Your task to perform on an android device: Open ESPN.com Image 0: 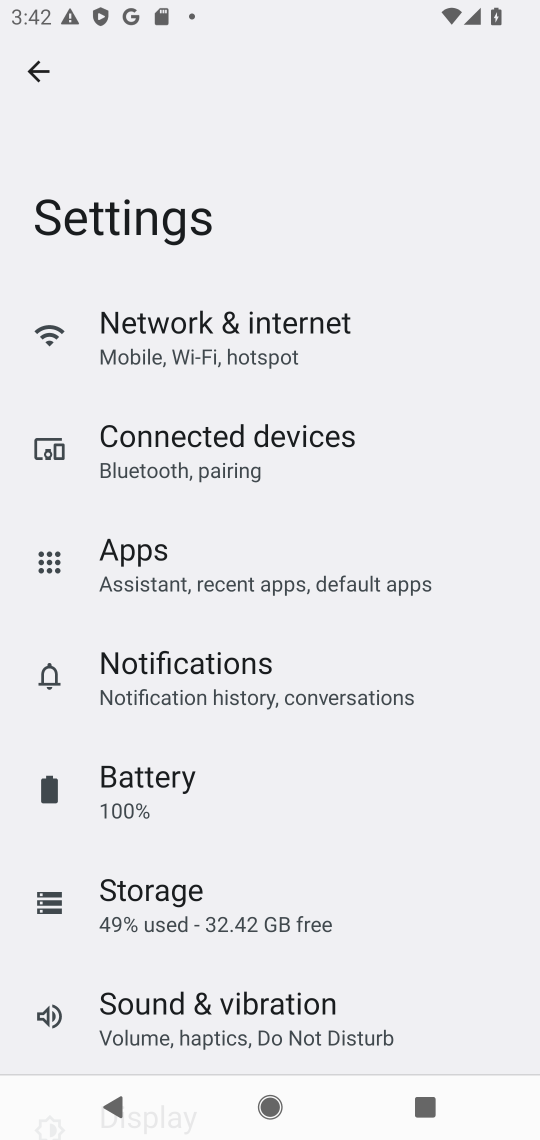
Step 0: press home button
Your task to perform on an android device: Open ESPN.com Image 1: 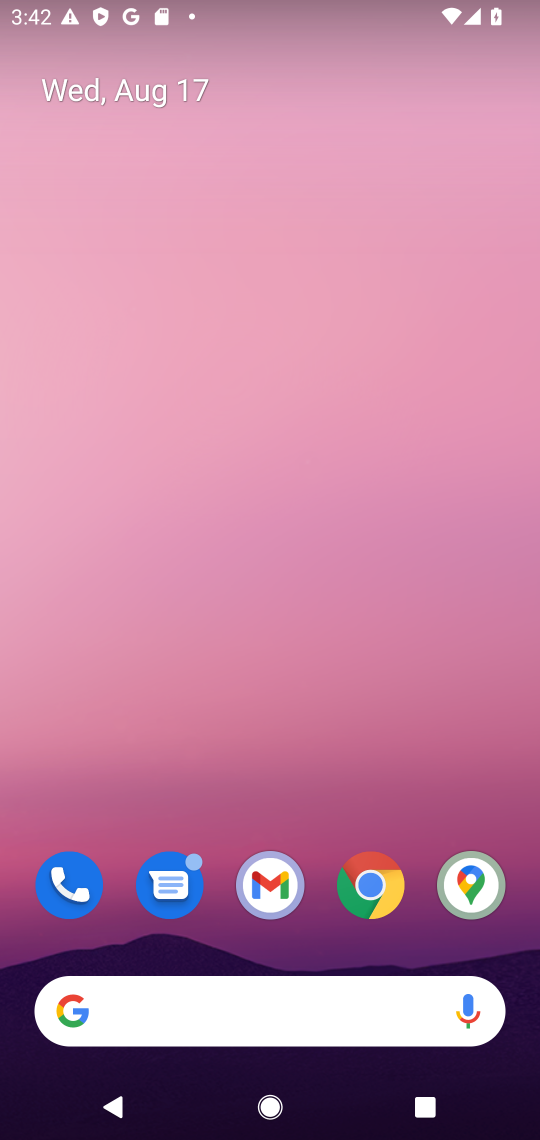
Step 1: click (370, 887)
Your task to perform on an android device: Open ESPN.com Image 2: 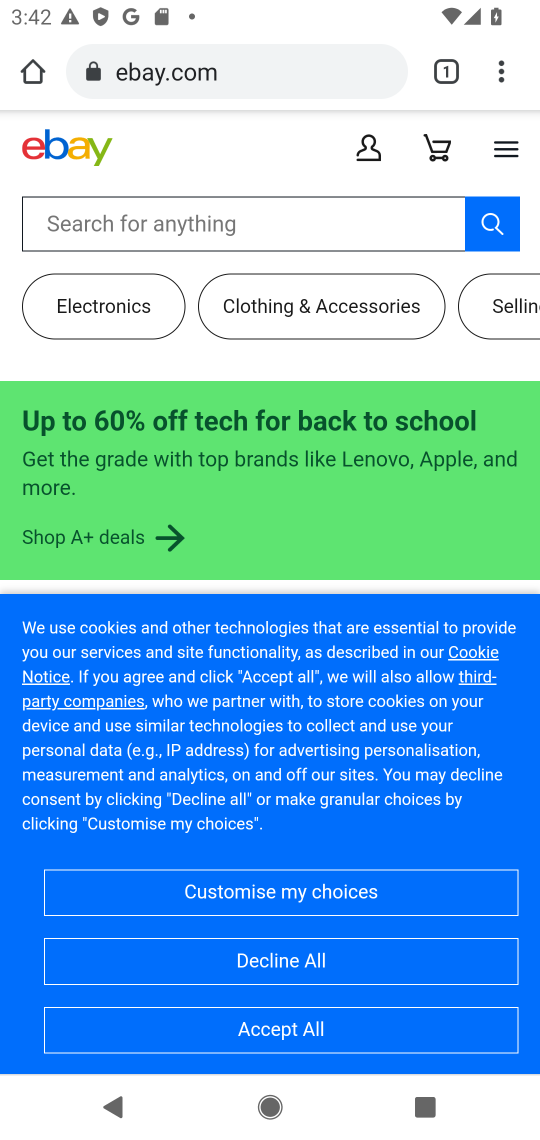
Step 2: click (290, 69)
Your task to perform on an android device: Open ESPN.com Image 3: 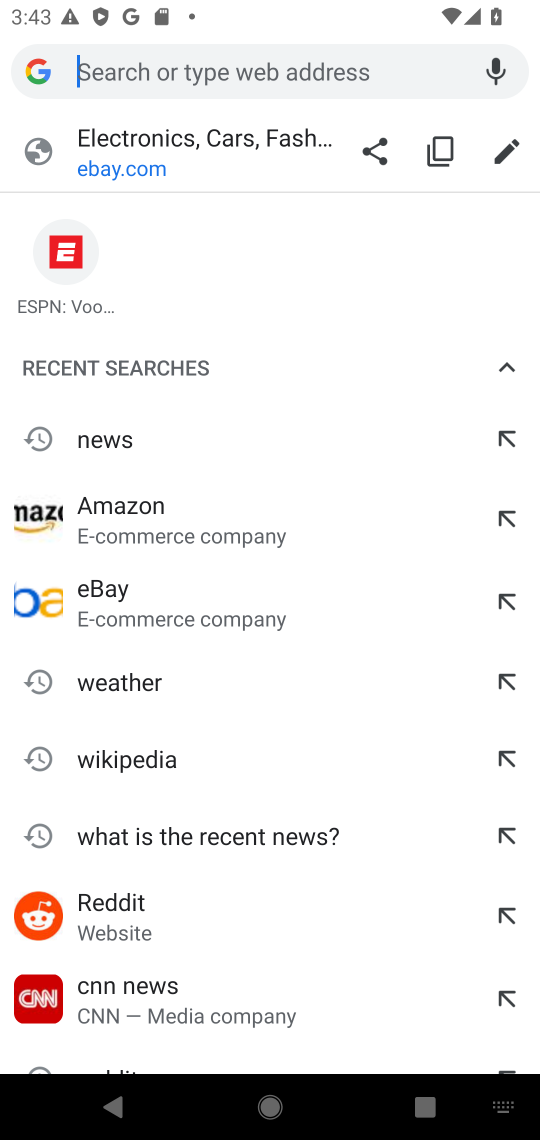
Step 3: type "ESPN.com"
Your task to perform on an android device: Open ESPN.com Image 4: 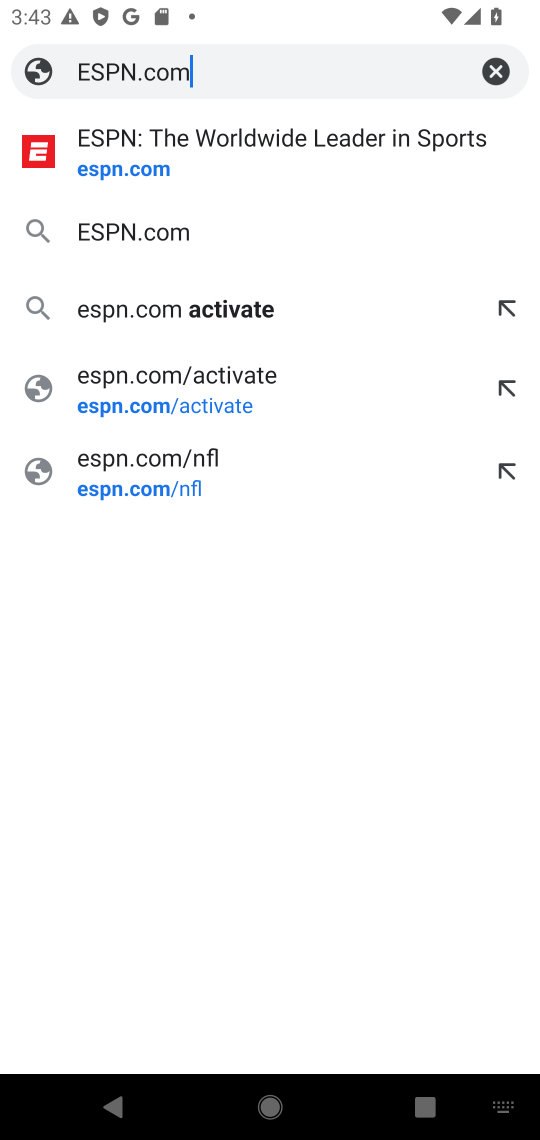
Step 4: click (142, 174)
Your task to perform on an android device: Open ESPN.com Image 5: 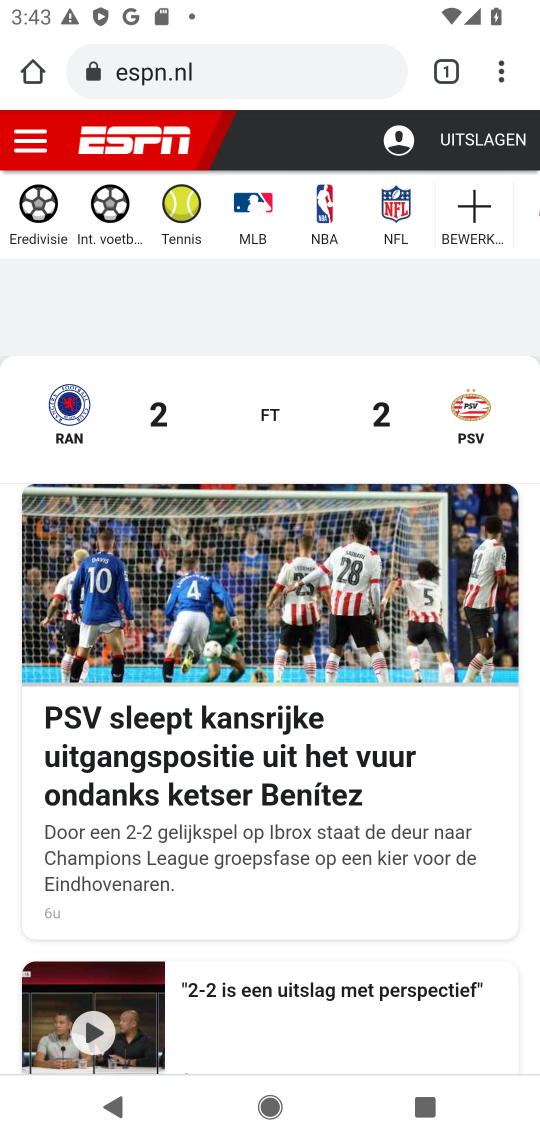
Step 5: task complete